Your task to perform on an android device: turn off location history Image 0: 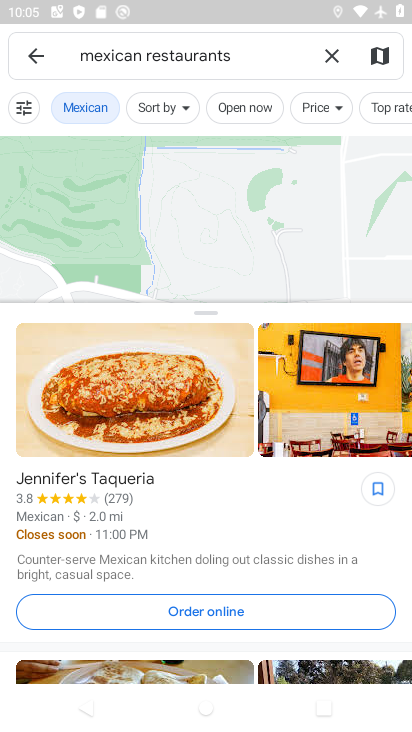
Step 0: press home button
Your task to perform on an android device: turn off location history Image 1: 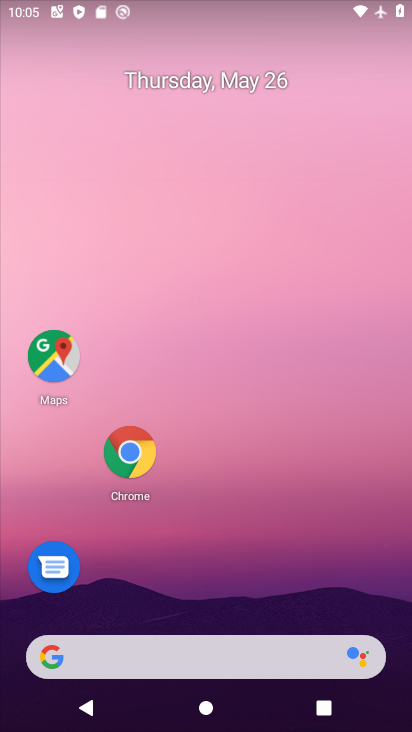
Step 1: drag from (176, 662) to (270, 142)
Your task to perform on an android device: turn off location history Image 2: 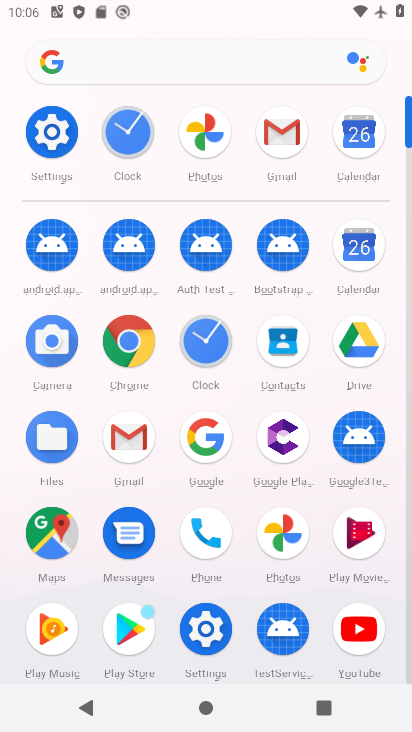
Step 2: click (54, 137)
Your task to perform on an android device: turn off location history Image 3: 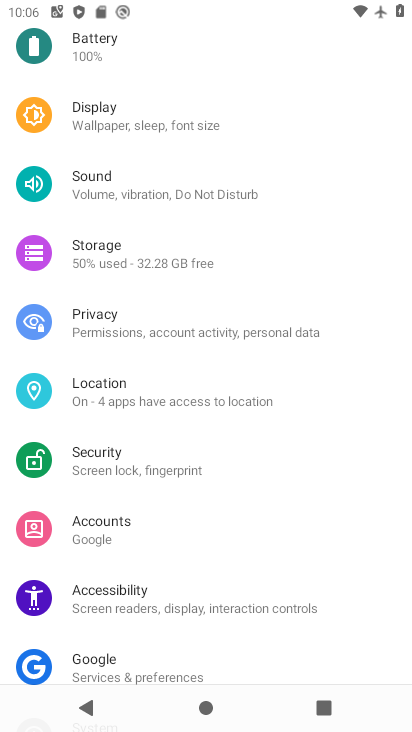
Step 3: click (130, 399)
Your task to perform on an android device: turn off location history Image 4: 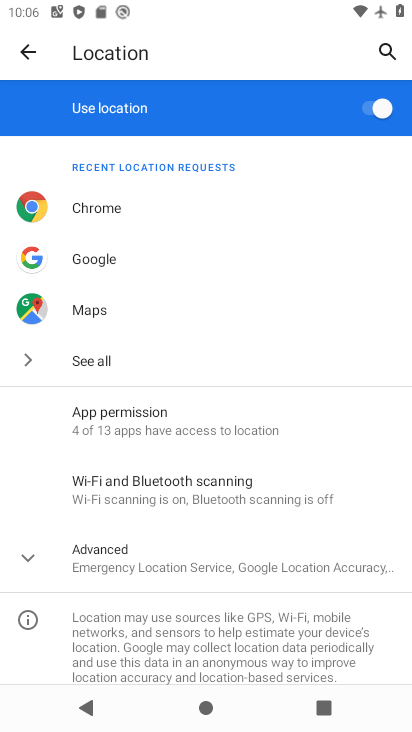
Step 4: click (152, 574)
Your task to perform on an android device: turn off location history Image 5: 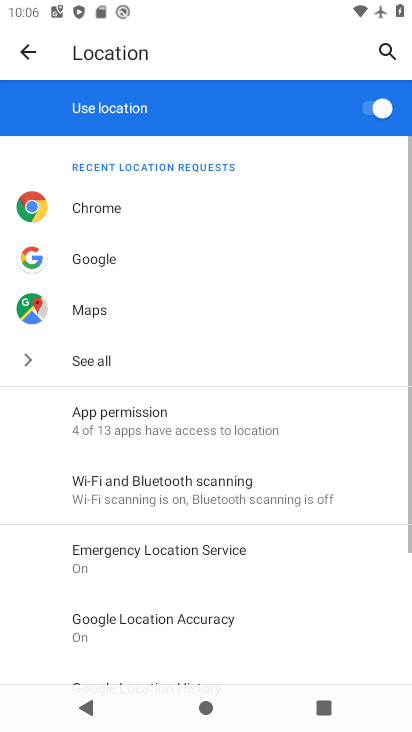
Step 5: drag from (219, 620) to (201, 184)
Your task to perform on an android device: turn off location history Image 6: 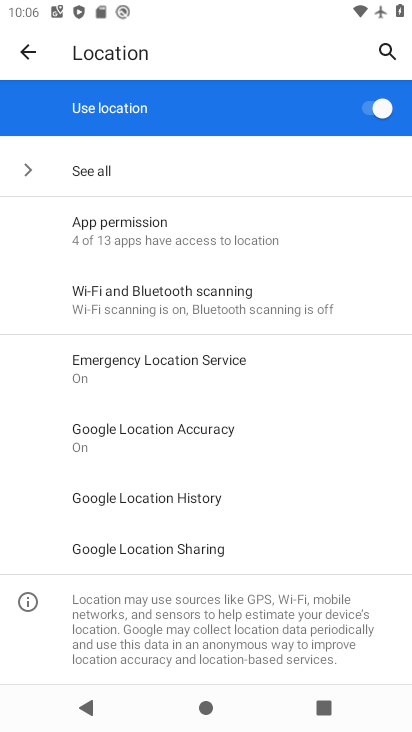
Step 6: click (161, 495)
Your task to perform on an android device: turn off location history Image 7: 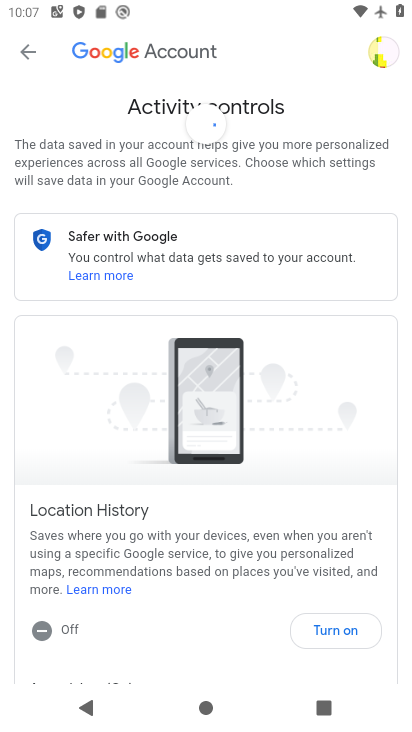
Step 7: task complete